Your task to perform on an android device: Show me productivity apps on the Play Store Image 0: 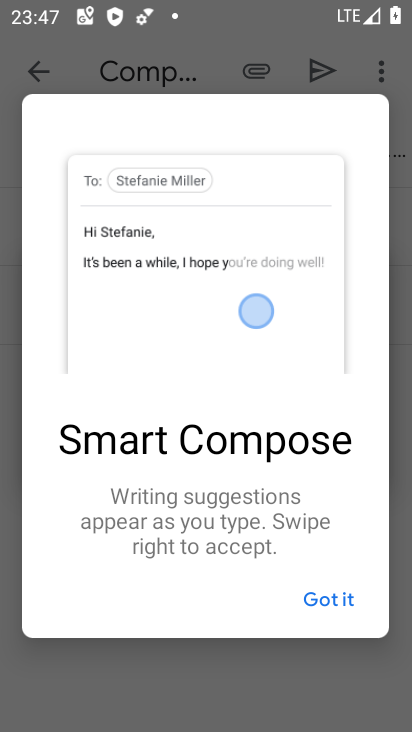
Step 0: press home button
Your task to perform on an android device: Show me productivity apps on the Play Store Image 1: 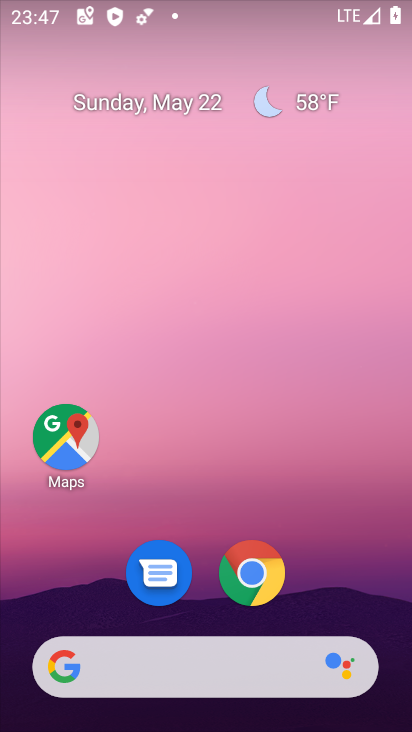
Step 1: drag from (202, 614) to (252, 79)
Your task to perform on an android device: Show me productivity apps on the Play Store Image 2: 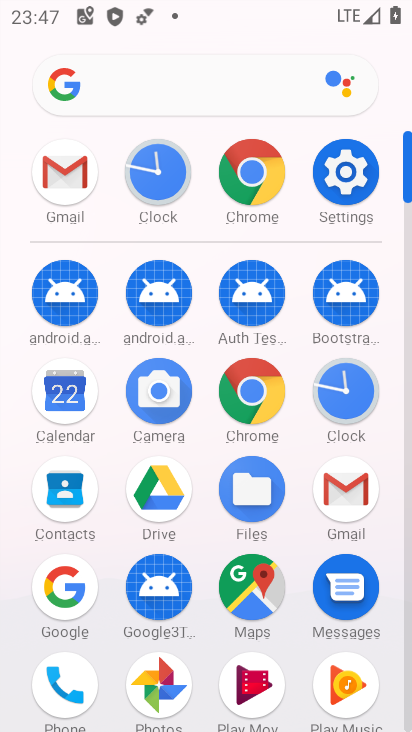
Step 2: drag from (192, 630) to (210, 291)
Your task to perform on an android device: Show me productivity apps on the Play Store Image 3: 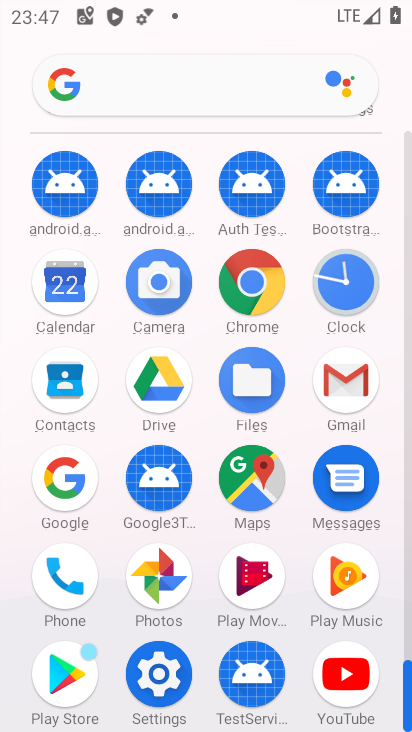
Step 3: click (65, 682)
Your task to perform on an android device: Show me productivity apps on the Play Store Image 4: 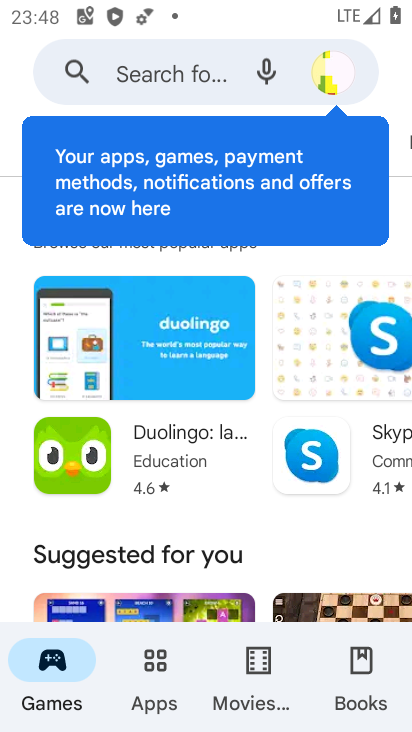
Step 4: click (158, 676)
Your task to perform on an android device: Show me productivity apps on the Play Store Image 5: 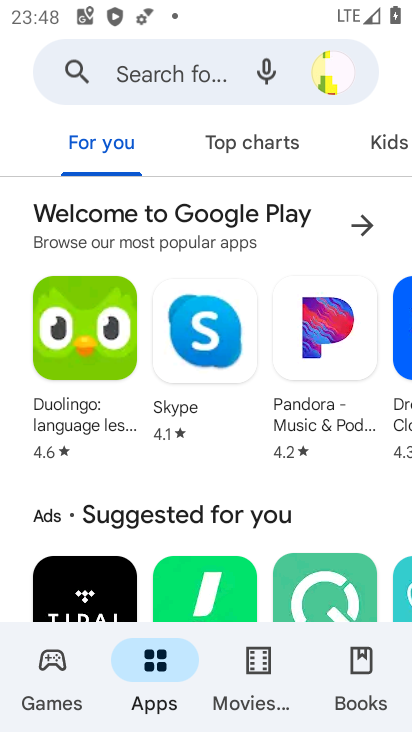
Step 5: drag from (360, 146) to (103, 135)
Your task to perform on an android device: Show me productivity apps on the Play Store Image 6: 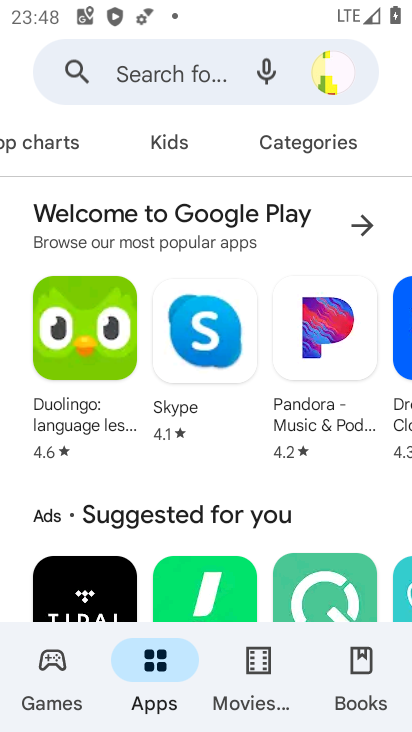
Step 6: click (306, 149)
Your task to perform on an android device: Show me productivity apps on the Play Store Image 7: 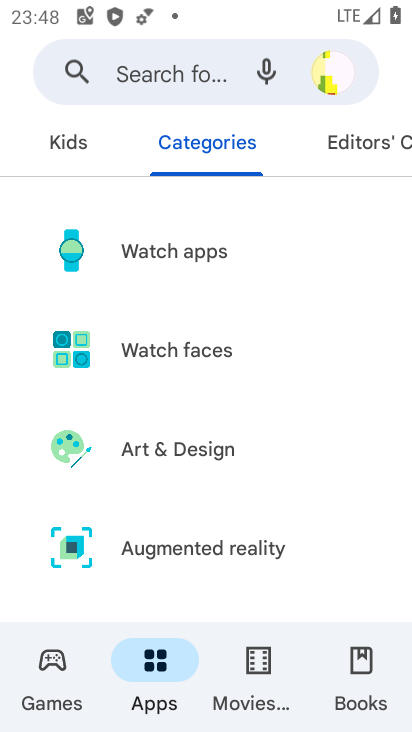
Step 7: drag from (226, 488) to (230, 207)
Your task to perform on an android device: Show me productivity apps on the Play Store Image 8: 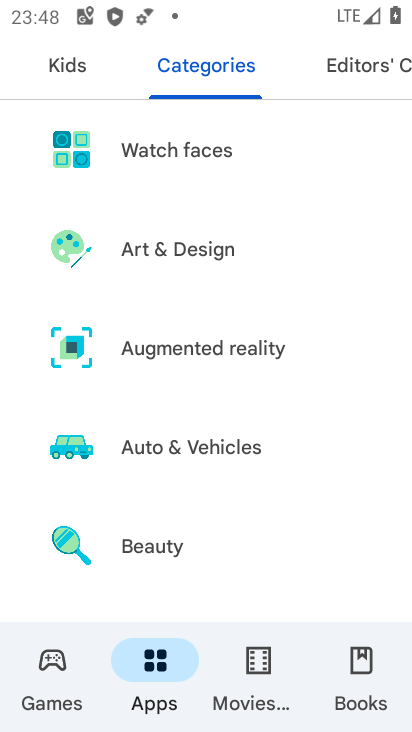
Step 8: drag from (171, 571) to (208, 219)
Your task to perform on an android device: Show me productivity apps on the Play Store Image 9: 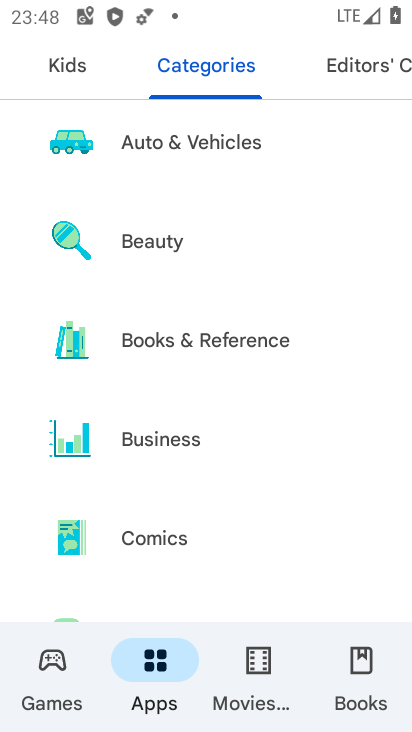
Step 9: drag from (162, 552) to (241, 83)
Your task to perform on an android device: Show me productivity apps on the Play Store Image 10: 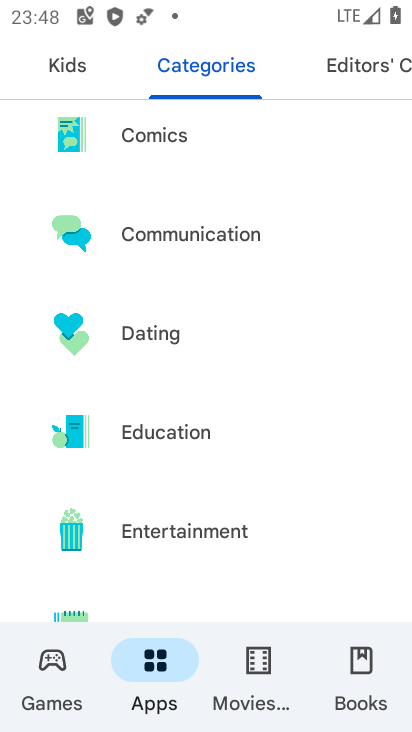
Step 10: drag from (170, 569) to (191, 32)
Your task to perform on an android device: Show me productivity apps on the Play Store Image 11: 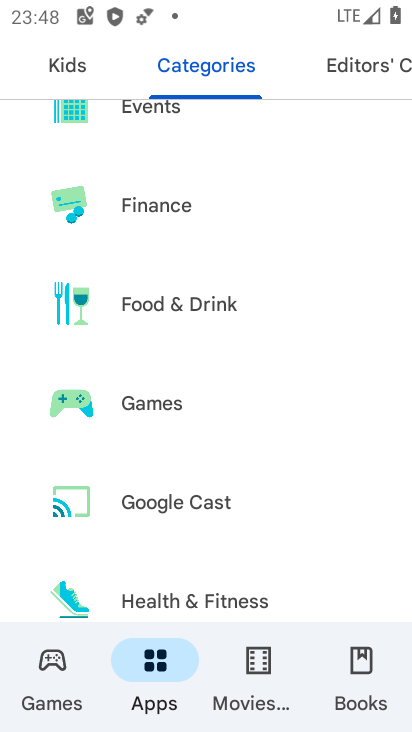
Step 11: drag from (156, 570) to (222, 22)
Your task to perform on an android device: Show me productivity apps on the Play Store Image 12: 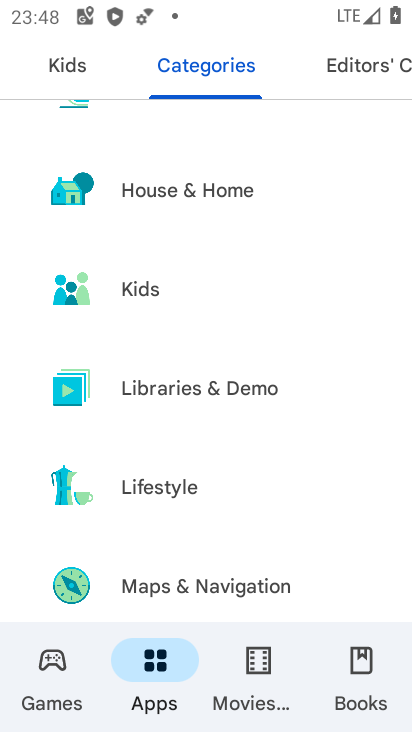
Step 12: drag from (163, 525) to (230, 17)
Your task to perform on an android device: Show me productivity apps on the Play Store Image 13: 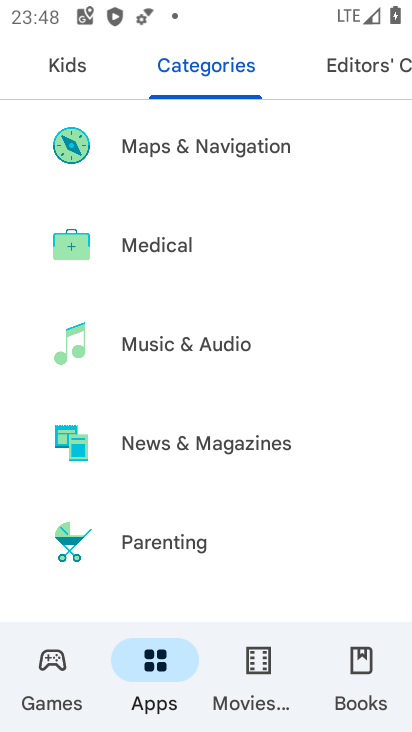
Step 13: drag from (185, 472) to (221, 84)
Your task to perform on an android device: Show me productivity apps on the Play Store Image 14: 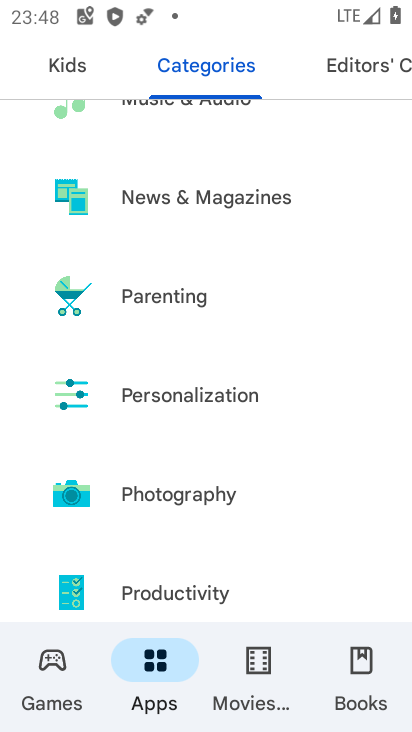
Step 14: click (189, 585)
Your task to perform on an android device: Show me productivity apps on the Play Store Image 15: 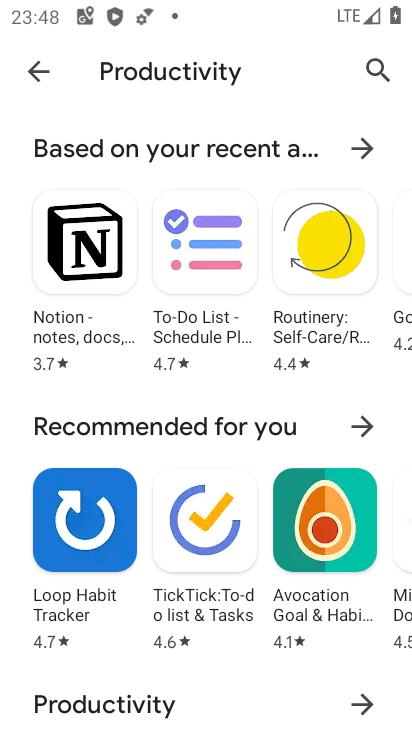
Step 15: task complete